Your task to perform on an android device: Open settings on Google Maps Image 0: 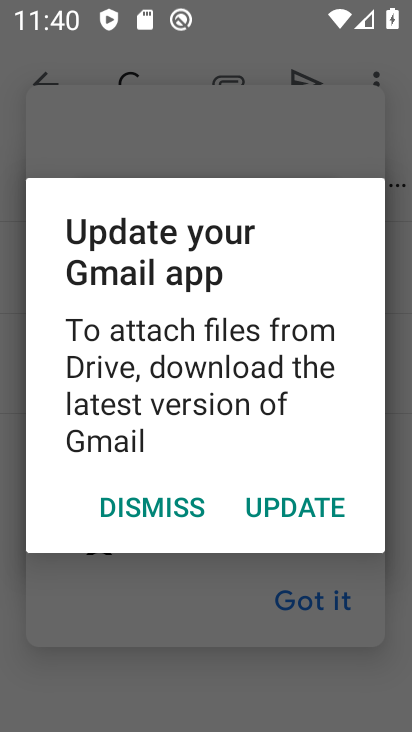
Step 0: press home button
Your task to perform on an android device: Open settings on Google Maps Image 1: 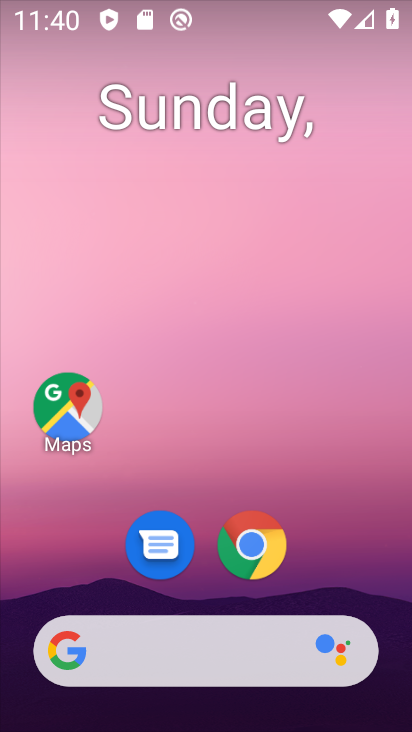
Step 1: drag from (384, 587) to (381, 184)
Your task to perform on an android device: Open settings on Google Maps Image 2: 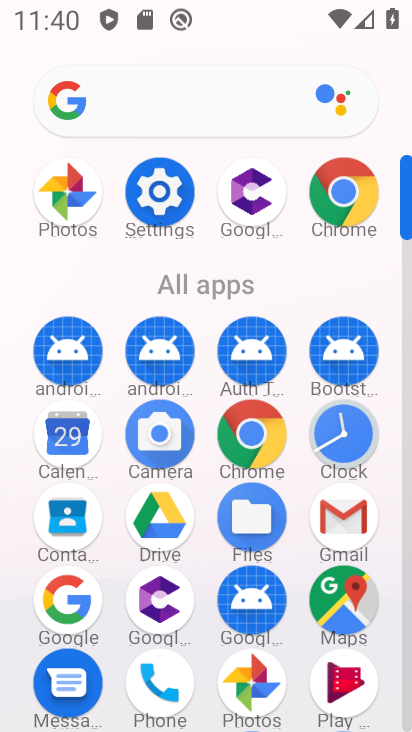
Step 2: click (360, 601)
Your task to perform on an android device: Open settings on Google Maps Image 3: 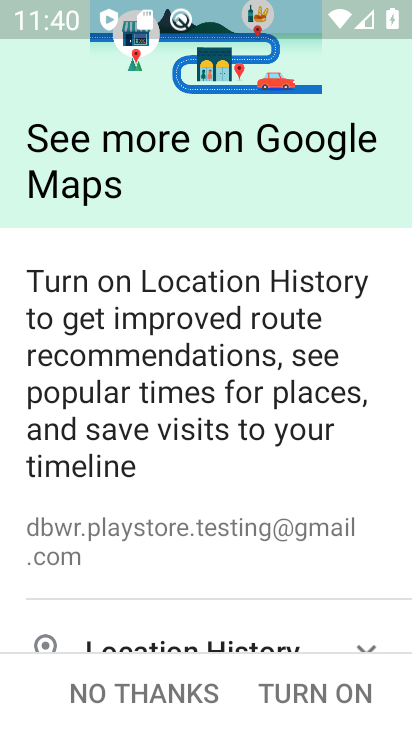
Step 3: task complete